Your task to perform on an android device: Open Maps and search for coffee Image 0: 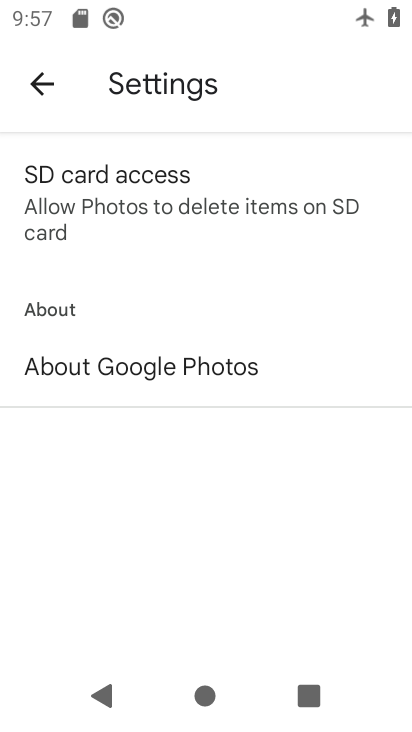
Step 0: press home button
Your task to perform on an android device: Open Maps and search for coffee Image 1: 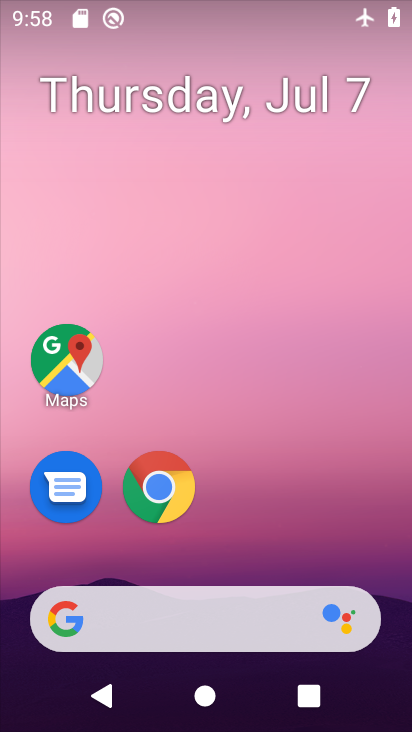
Step 1: drag from (355, 535) to (333, 71)
Your task to perform on an android device: Open Maps and search for coffee Image 2: 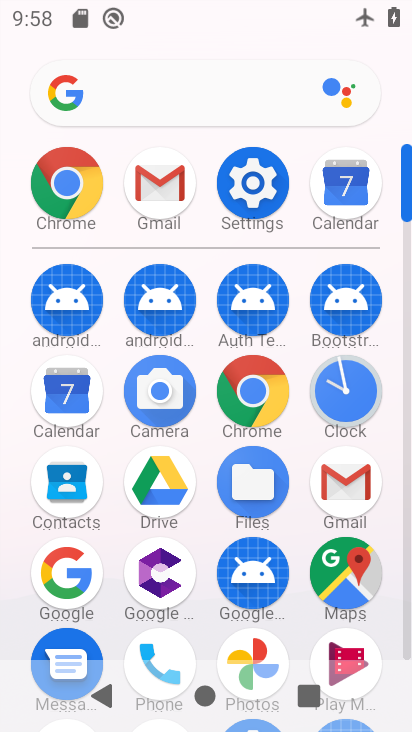
Step 2: click (353, 564)
Your task to perform on an android device: Open Maps and search for coffee Image 3: 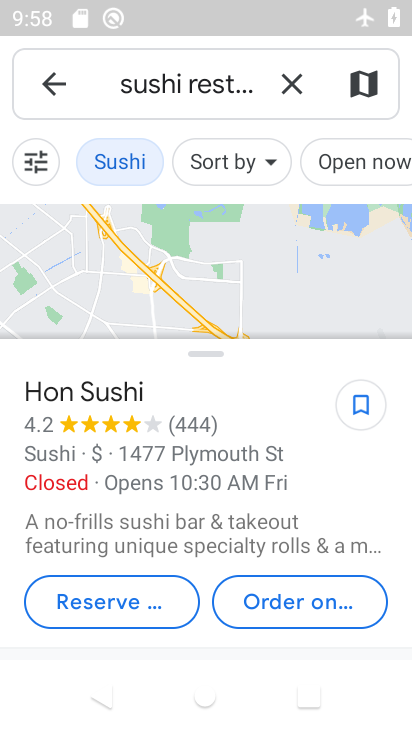
Step 3: press back button
Your task to perform on an android device: Open Maps and search for coffee Image 4: 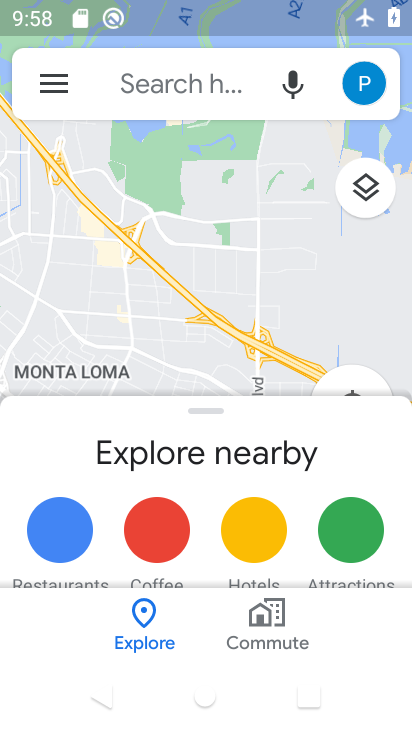
Step 4: click (215, 99)
Your task to perform on an android device: Open Maps and search for coffee Image 5: 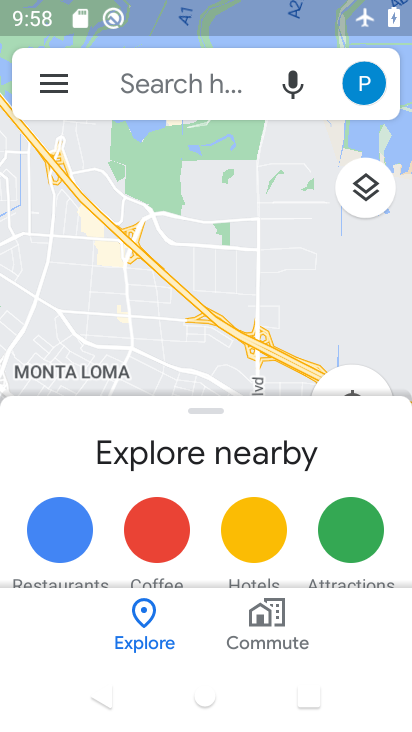
Step 5: click (215, 99)
Your task to perform on an android device: Open Maps and search for coffee Image 6: 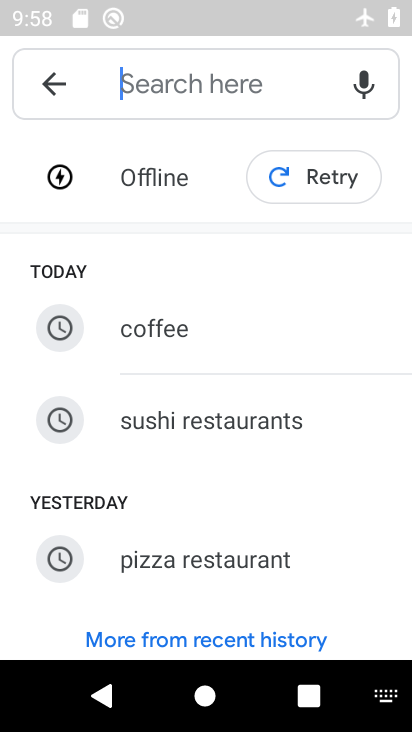
Step 6: type "coffee"
Your task to perform on an android device: Open Maps and search for coffee Image 7: 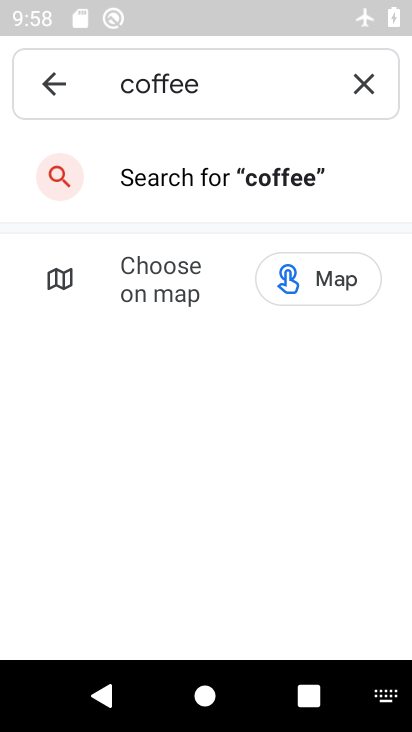
Step 7: task complete